Your task to perform on an android device: Search for vegetarian restaurants on Maps Image 0: 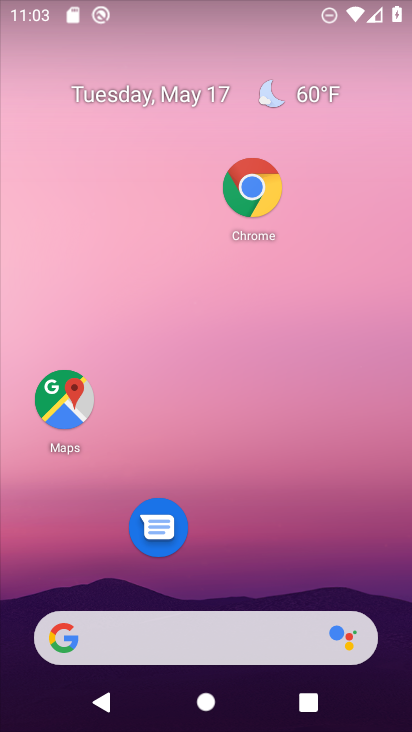
Step 0: click (68, 425)
Your task to perform on an android device: Search for vegetarian restaurants on Maps Image 1: 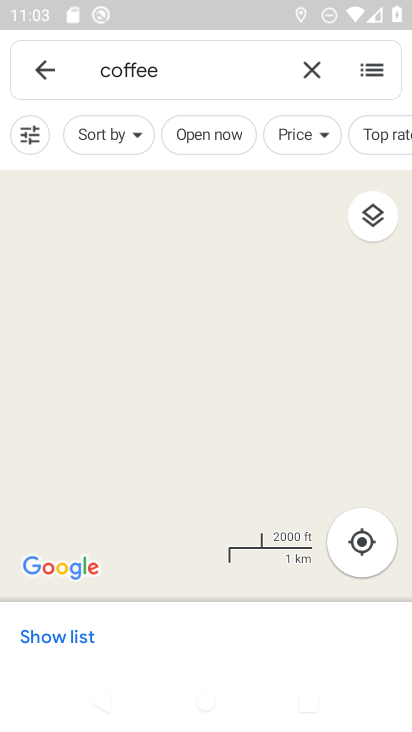
Step 1: click (316, 74)
Your task to perform on an android device: Search for vegetarian restaurants on Maps Image 2: 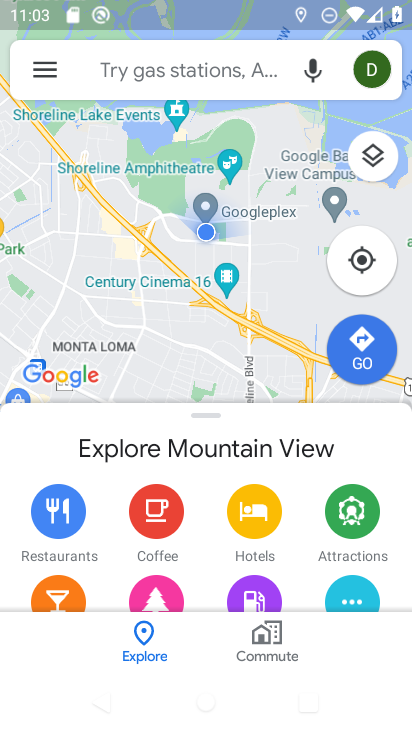
Step 2: click (229, 69)
Your task to perform on an android device: Search for vegetarian restaurants on Maps Image 3: 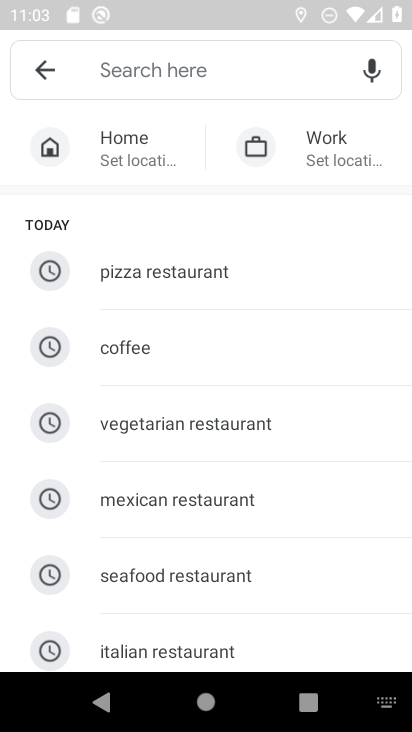
Step 3: click (236, 438)
Your task to perform on an android device: Search for vegetarian restaurants on Maps Image 4: 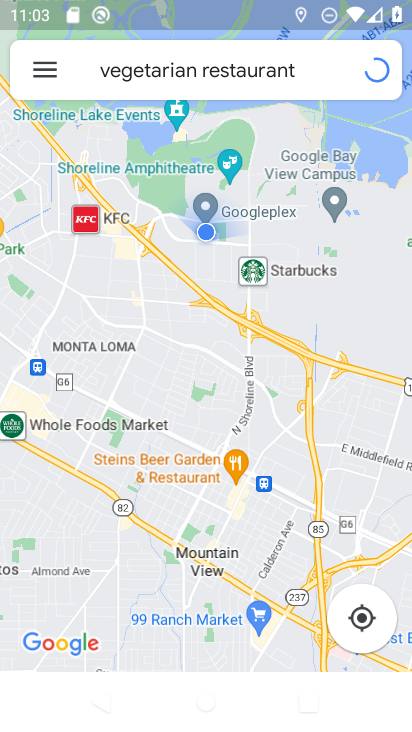
Step 4: task complete